Your task to perform on an android device: Open location settings Image 0: 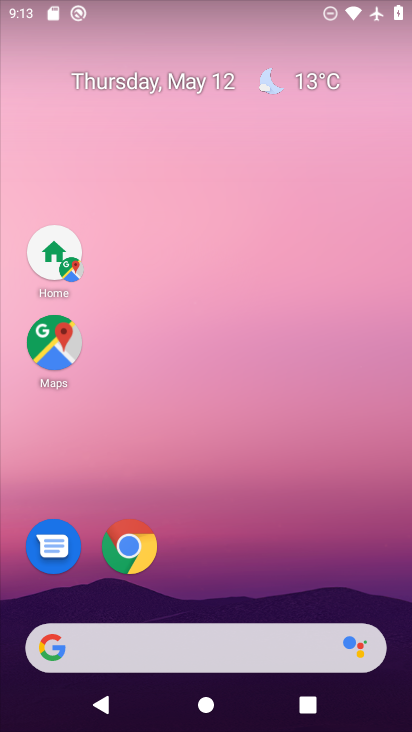
Step 0: press home button
Your task to perform on an android device: Open location settings Image 1: 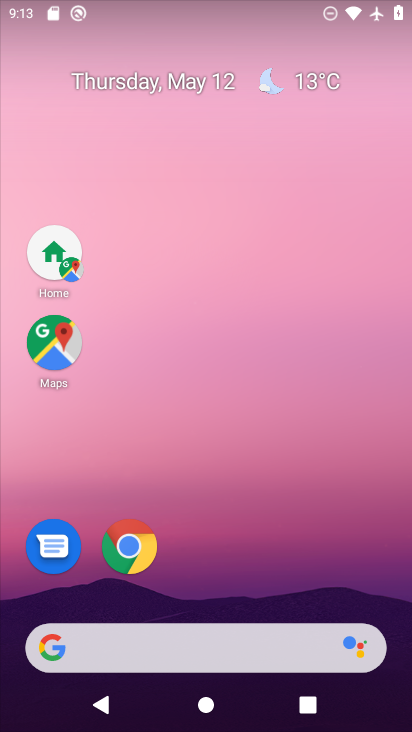
Step 1: drag from (184, 650) to (256, 215)
Your task to perform on an android device: Open location settings Image 2: 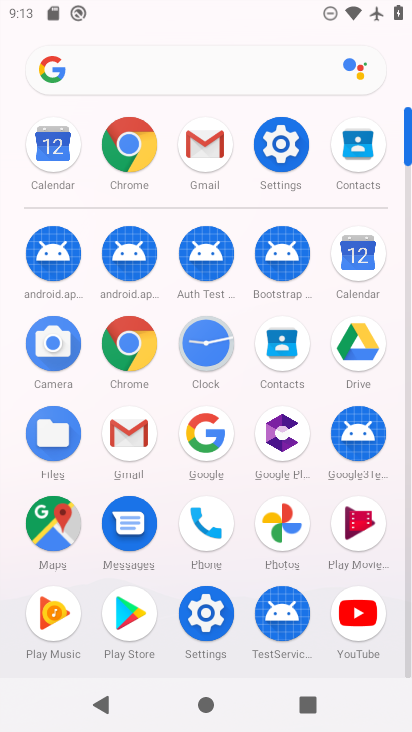
Step 2: click (280, 152)
Your task to perform on an android device: Open location settings Image 3: 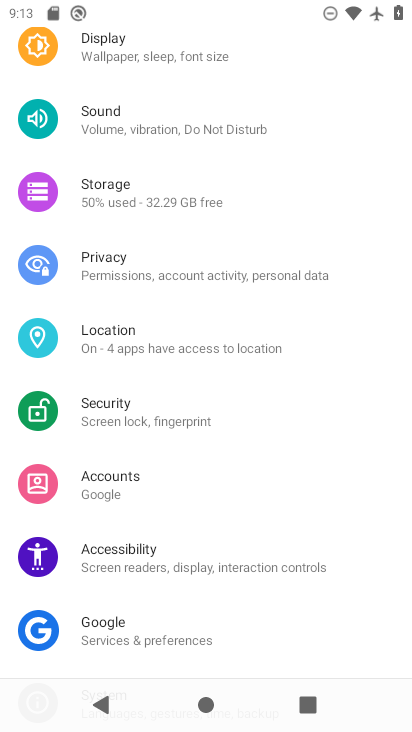
Step 3: click (141, 355)
Your task to perform on an android device: Open location settings Image 4: 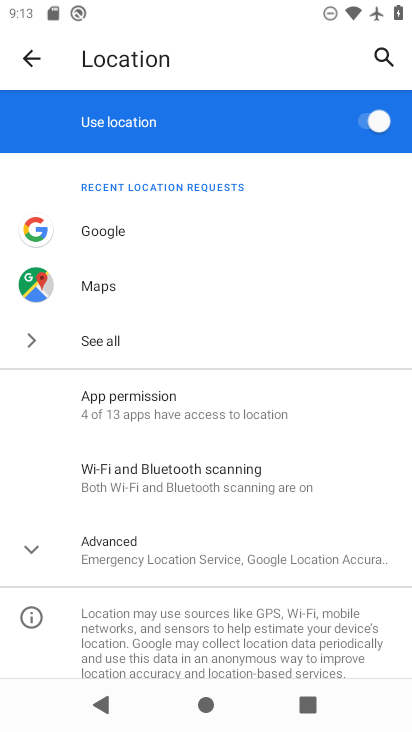
Step 4: task complete